Your task to perform on an android device: read, delete, or share a saved page in the chrome app Image 0: 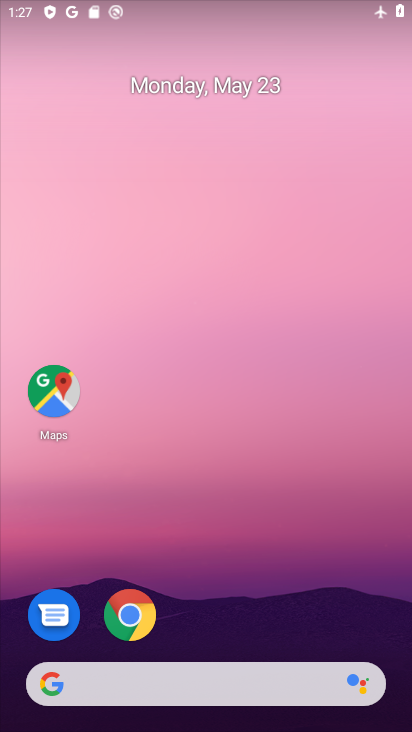
Step 0: drag from (265, 641) to (244, 153)
Your task to perform on an android device: read, delete, or share a saved page in the chrome app Image 1: 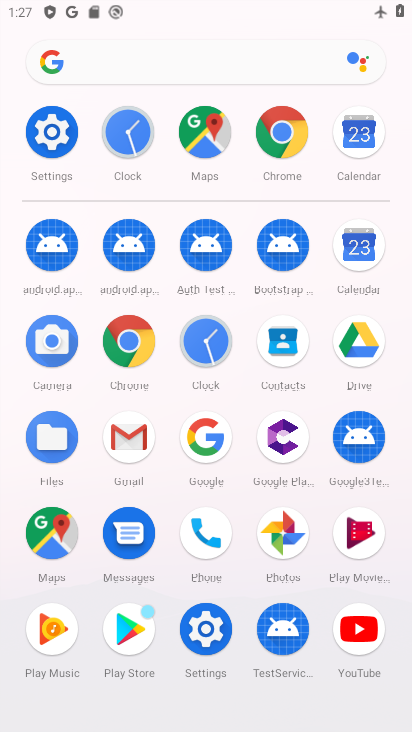
Step 1: click (149, 344)
Your task to perform on an android device: read, delete, or share a saved page in the chrome app Image 2: 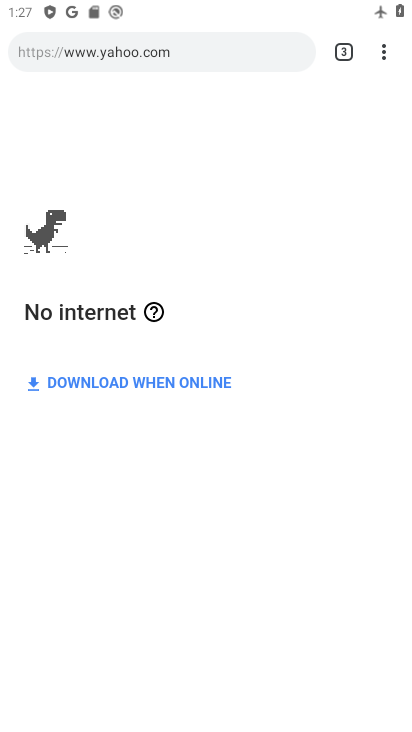
Step 2: click (387, 55)
Your task to perform on an android device: read, delete, or share a saved page in the chrome app Image 3: 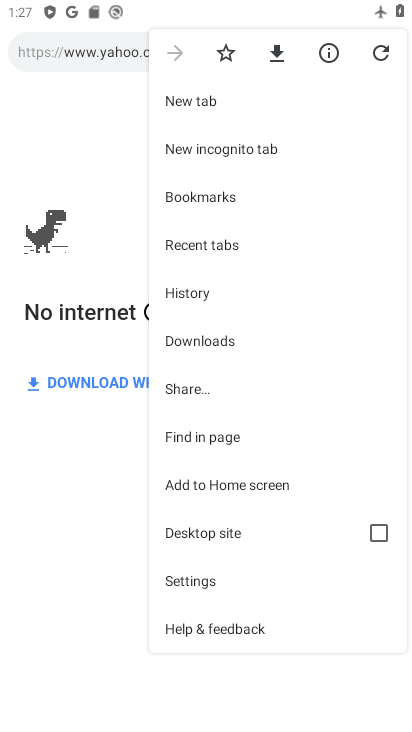
Step 3: click (182, 326)
Your task to perform on an android device: read, delete, or share a saved page in the chrome app Image 4: 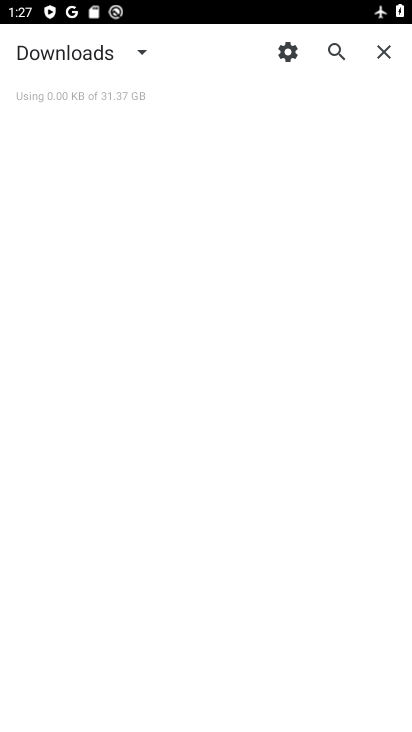
Step 4: task complete